Your task to perform on an android device: Search for lg ultragear on bestbuy.com, select the first entry, add it to the cart, then select checkout. Image 0: 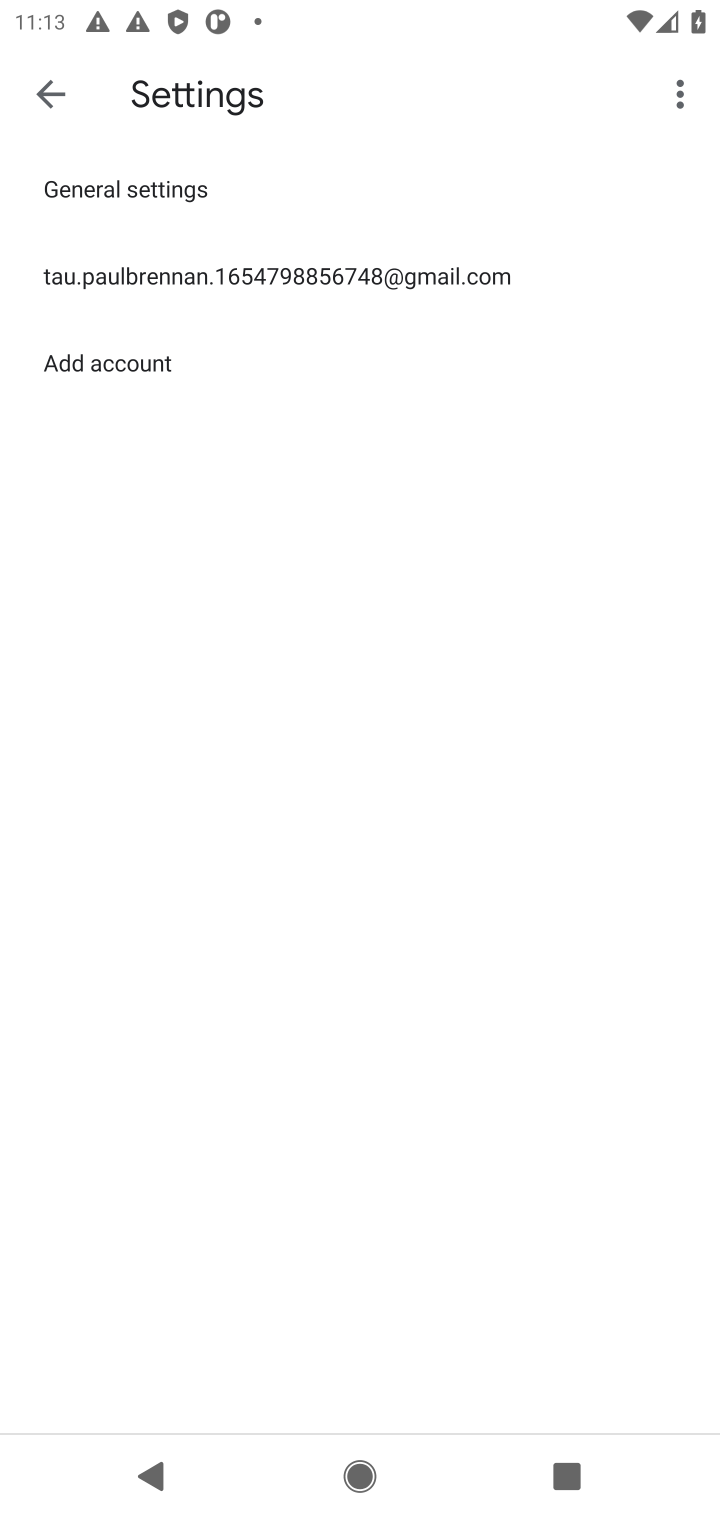
Step 0: press home button
Your task to perform on an android device: Search for lg ultragear on bestbuy.com, select the first entry, add it to the cart, then select checkout. Image 1: 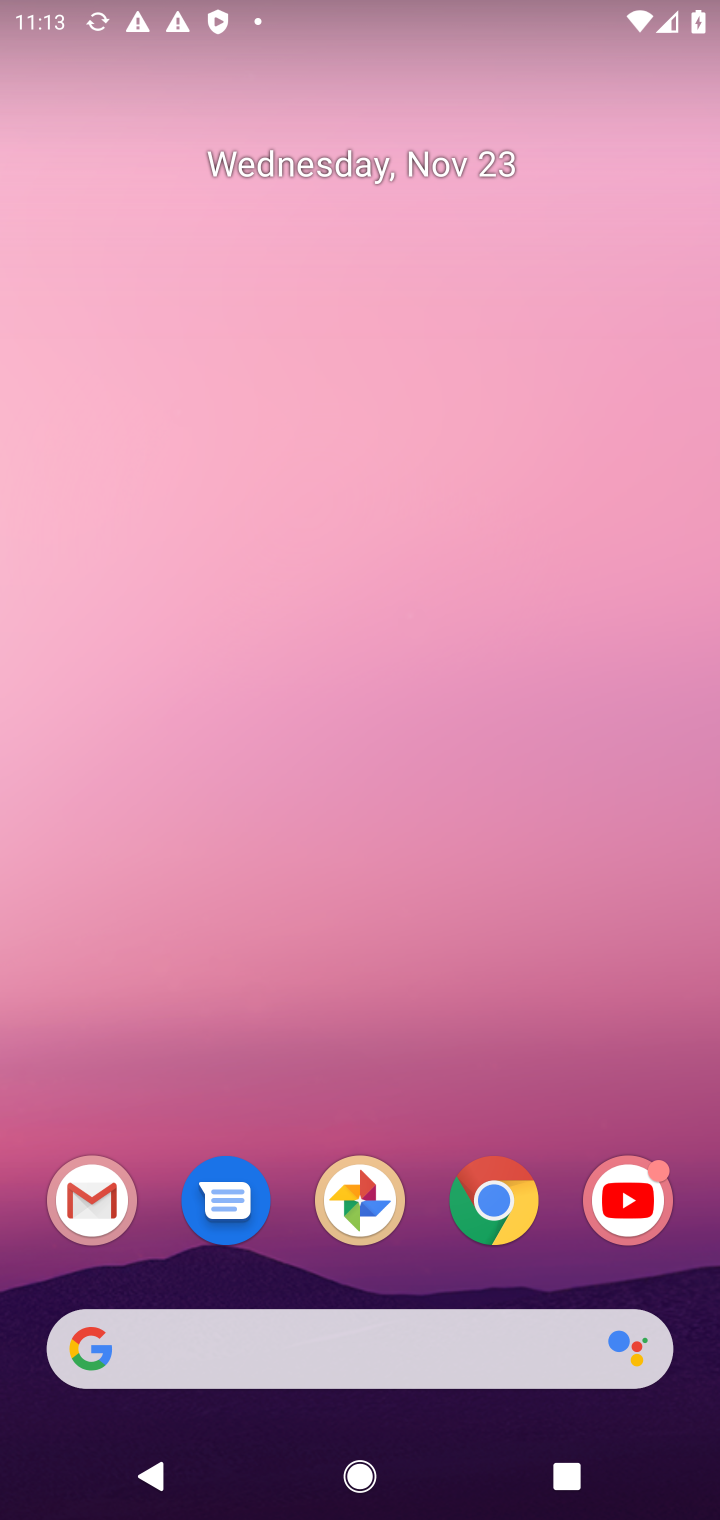
Step 1: click (258, 1359)
Your task to perform on an android device: Search for lg ultragear on bestbuy.com, select the first entry, add it to the cart, then select checkout. Image 2: 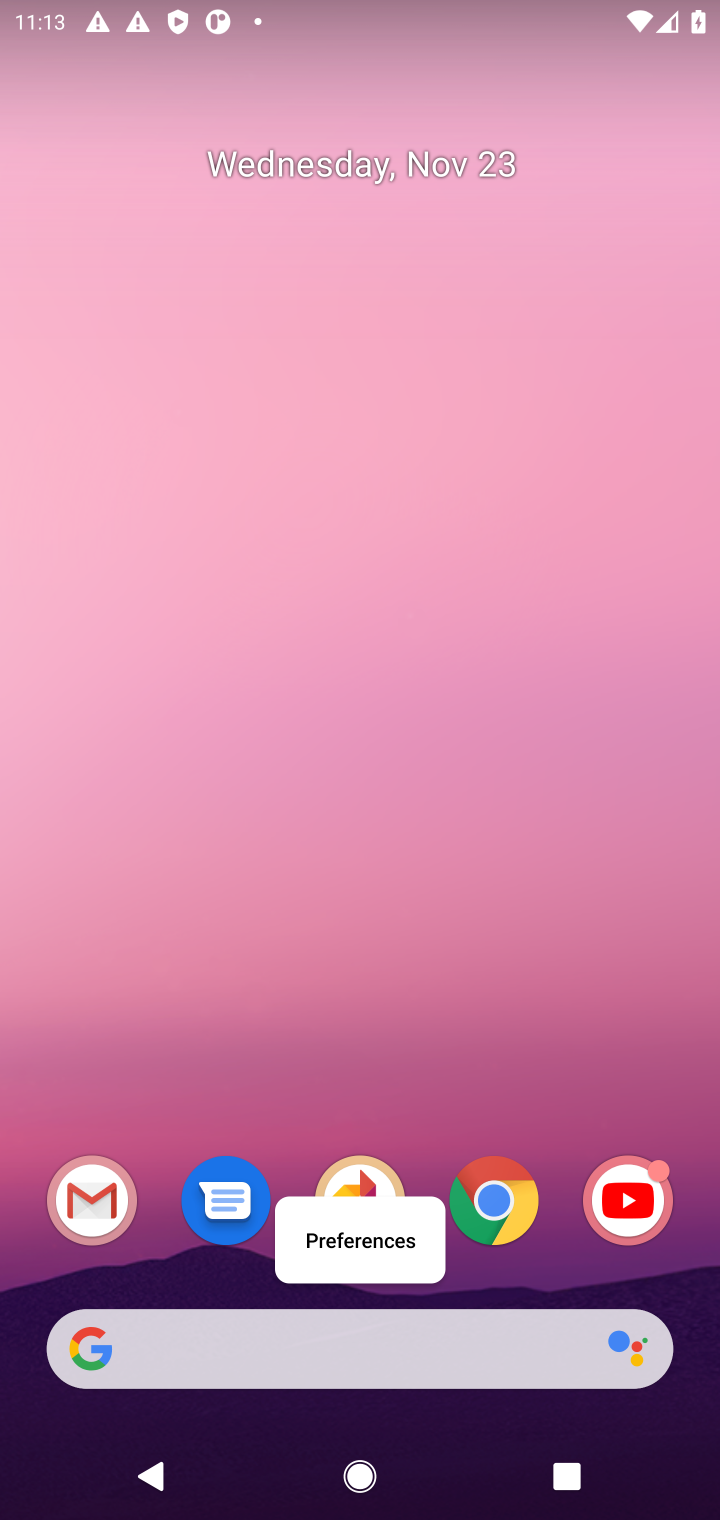
Step 2: type "bestbuy.com"
Your task to perform on an android device: Search for lg ultragear on bestbuy.com, select the first entry, add it to the cart, then select checkout. Image 3: 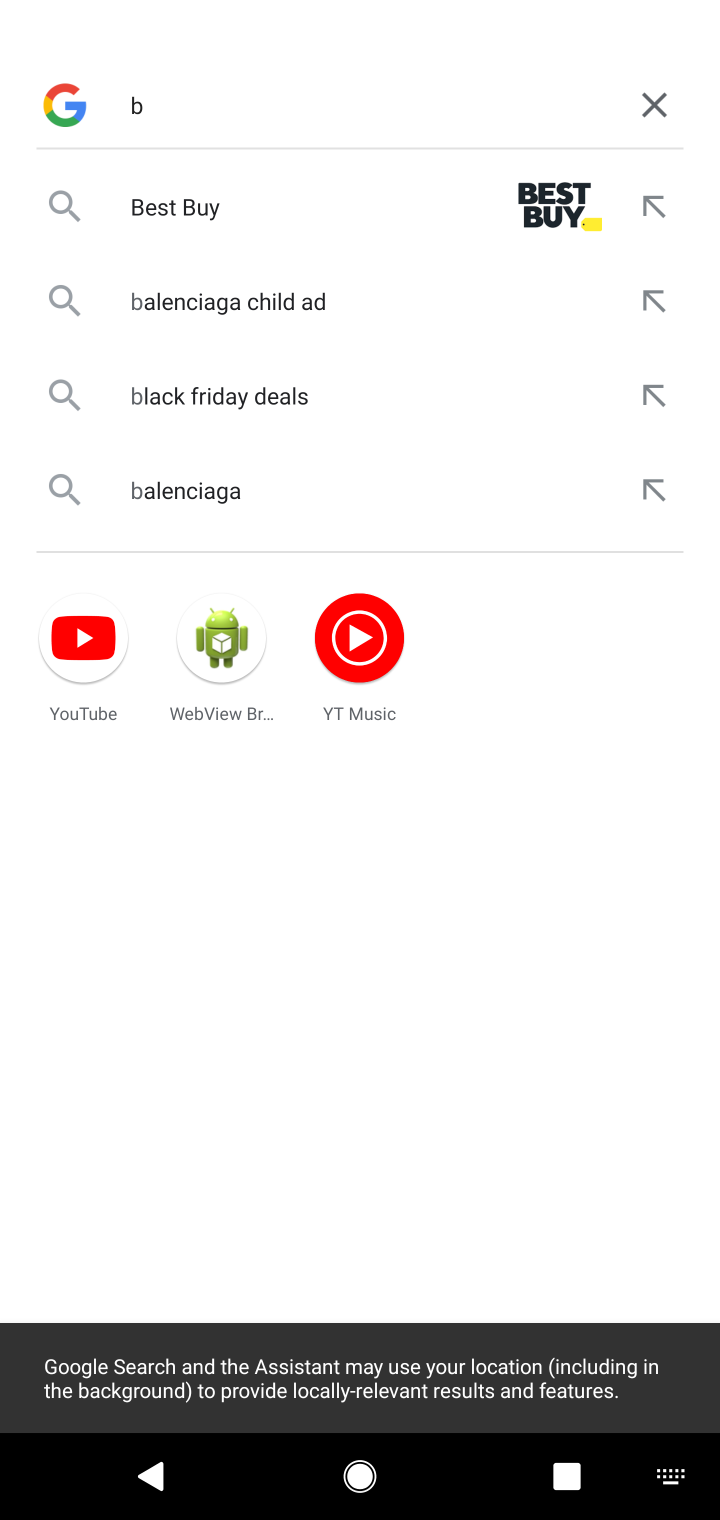
Step 3: click (243, 228)
Your task to perform on an android device: Search for lg ultragear on bestbuy.com, select the first entry, add it to the cart, then select checkout. Image 4: 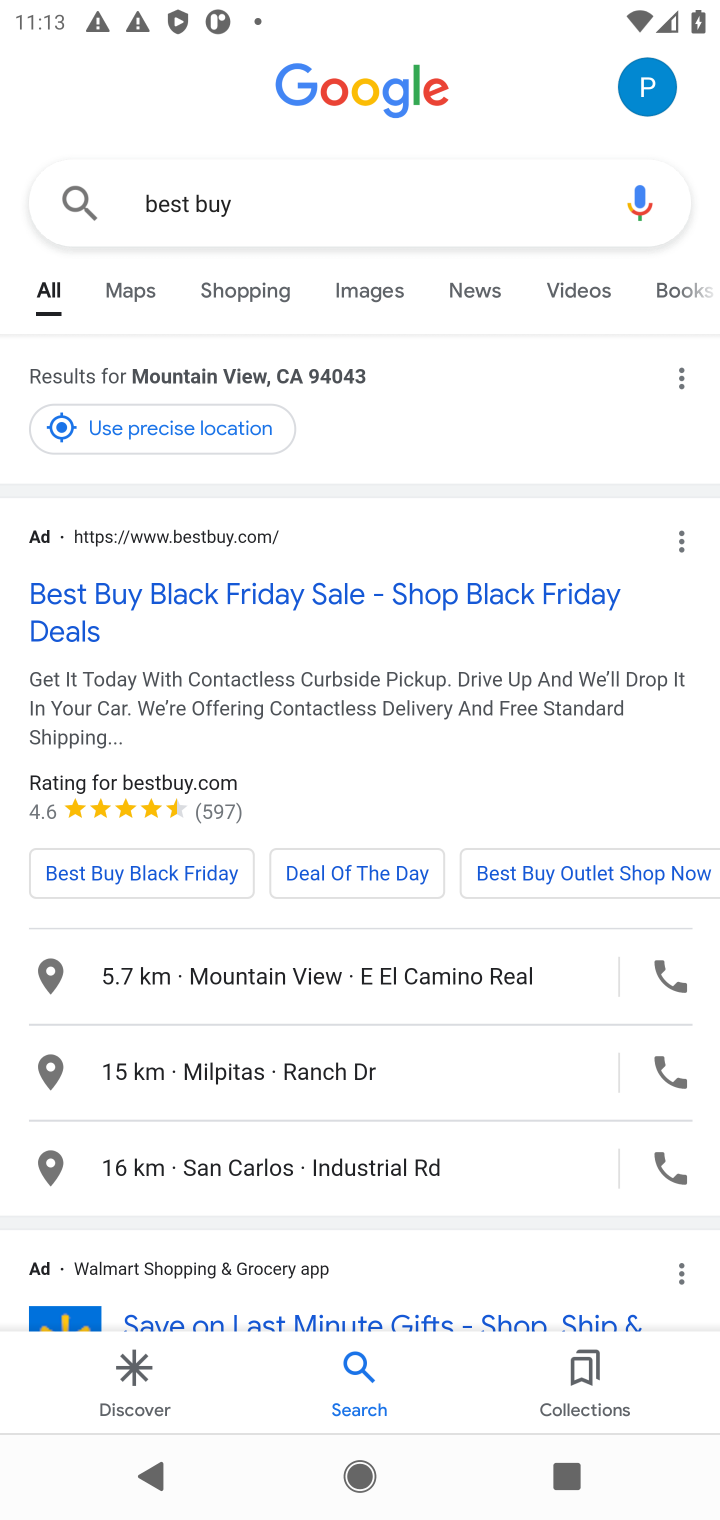
Step 4: click (109, 603)
Your task to perform on an android device: Search for lg ultragear on bestbuy.com, select the first entry, add it to the cart, then select checkout. Image 5: 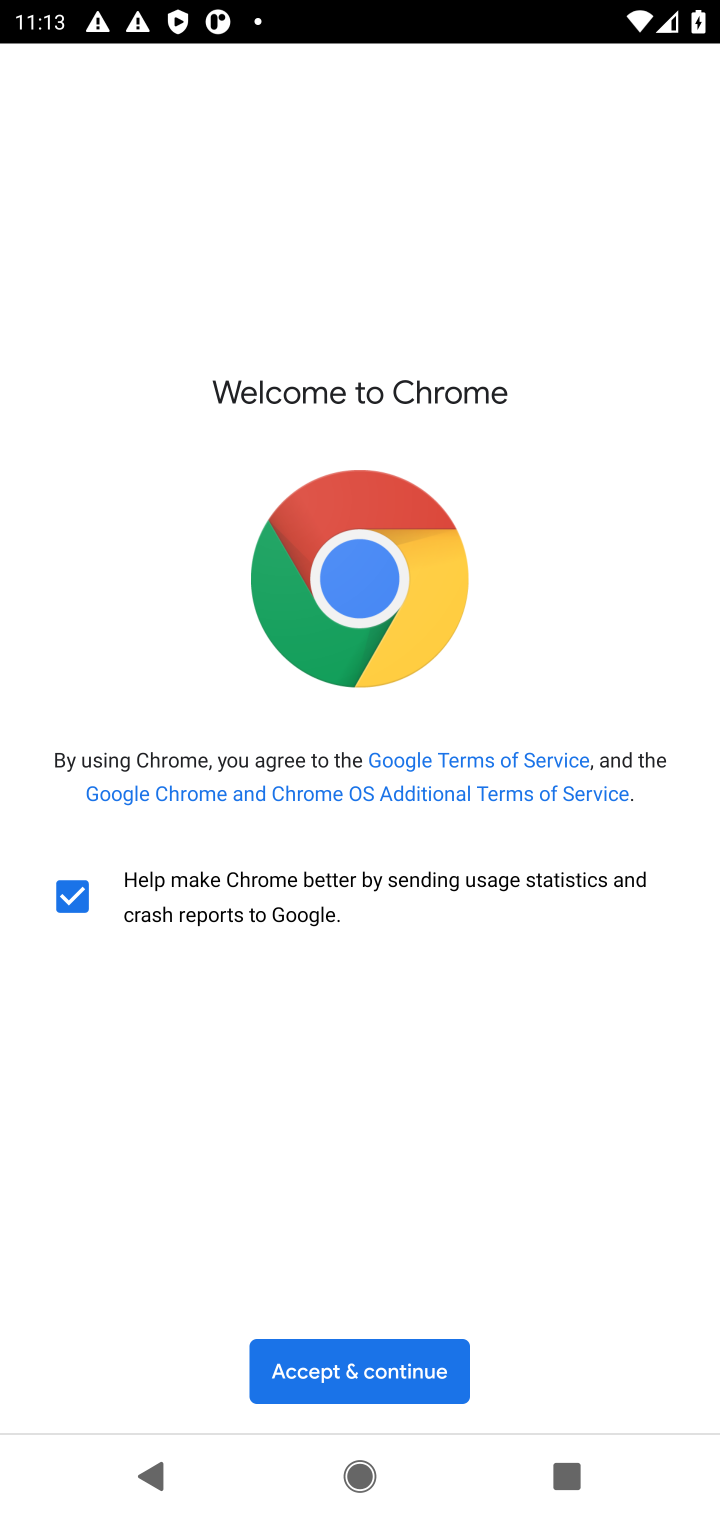
Step 5: click (391, 1393)
Your task to perform on an android device: Search for lg ultragear on bestbuy.com, select the first entry, add it to the cart, then select checkout. Image 6: 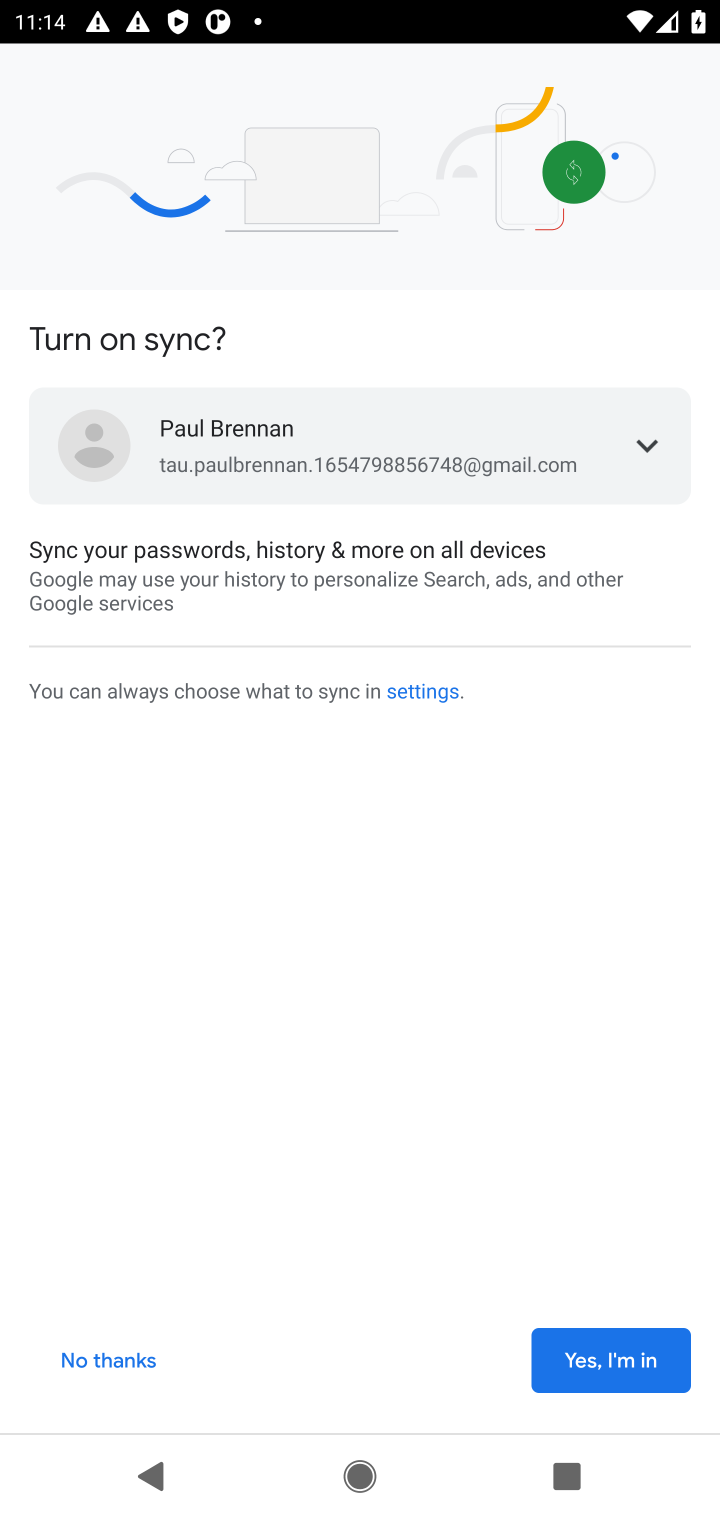
Step 6: click (568, 1377)
Your task to perform on an android device: Search for lg ultragear on bestbuy.com, select the first entry, add it to the cart, then select checkout. Image 7: 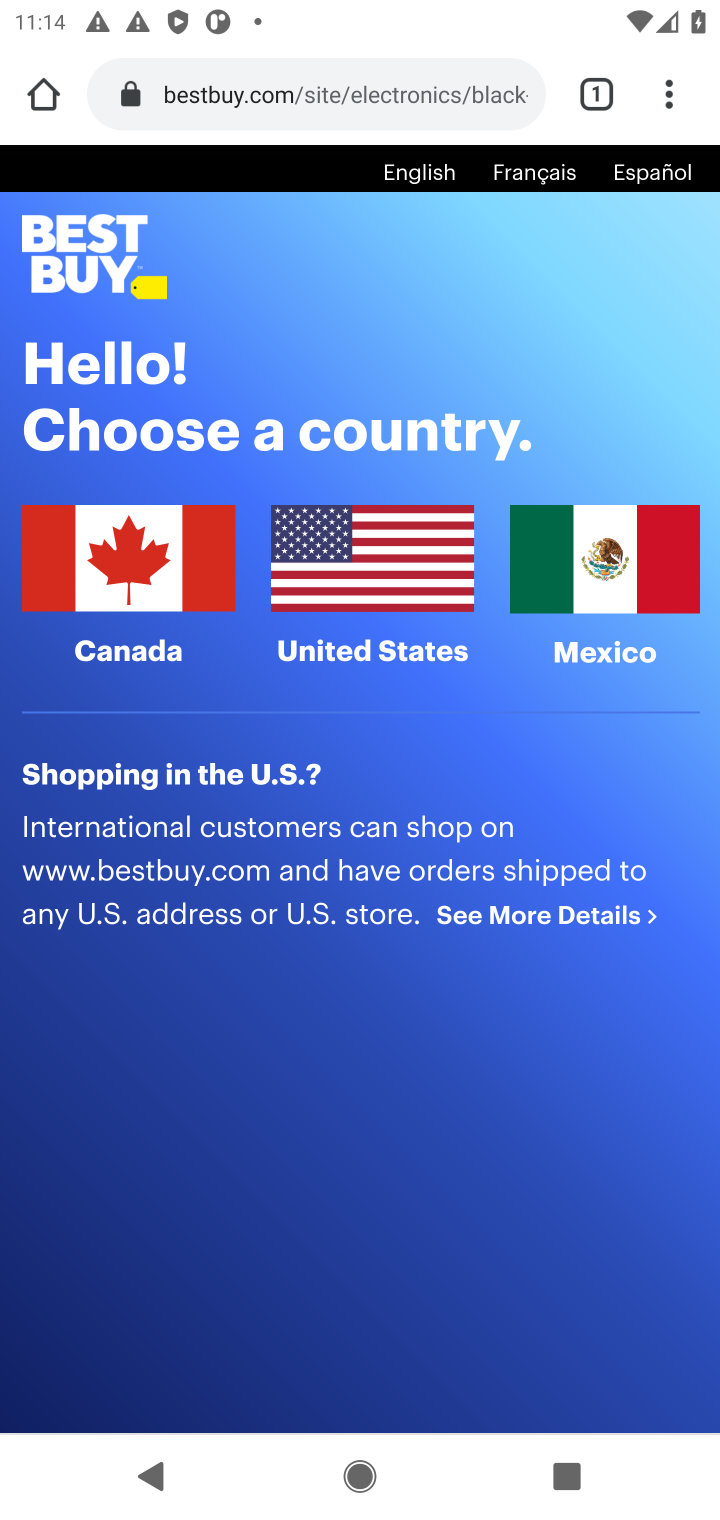
Step 7: click (99, 587)
Your task to perform on an android device: Search for lg ultragear on bestbuy.com, select the first entry, add it to the cart, then select checkout. Image 8: 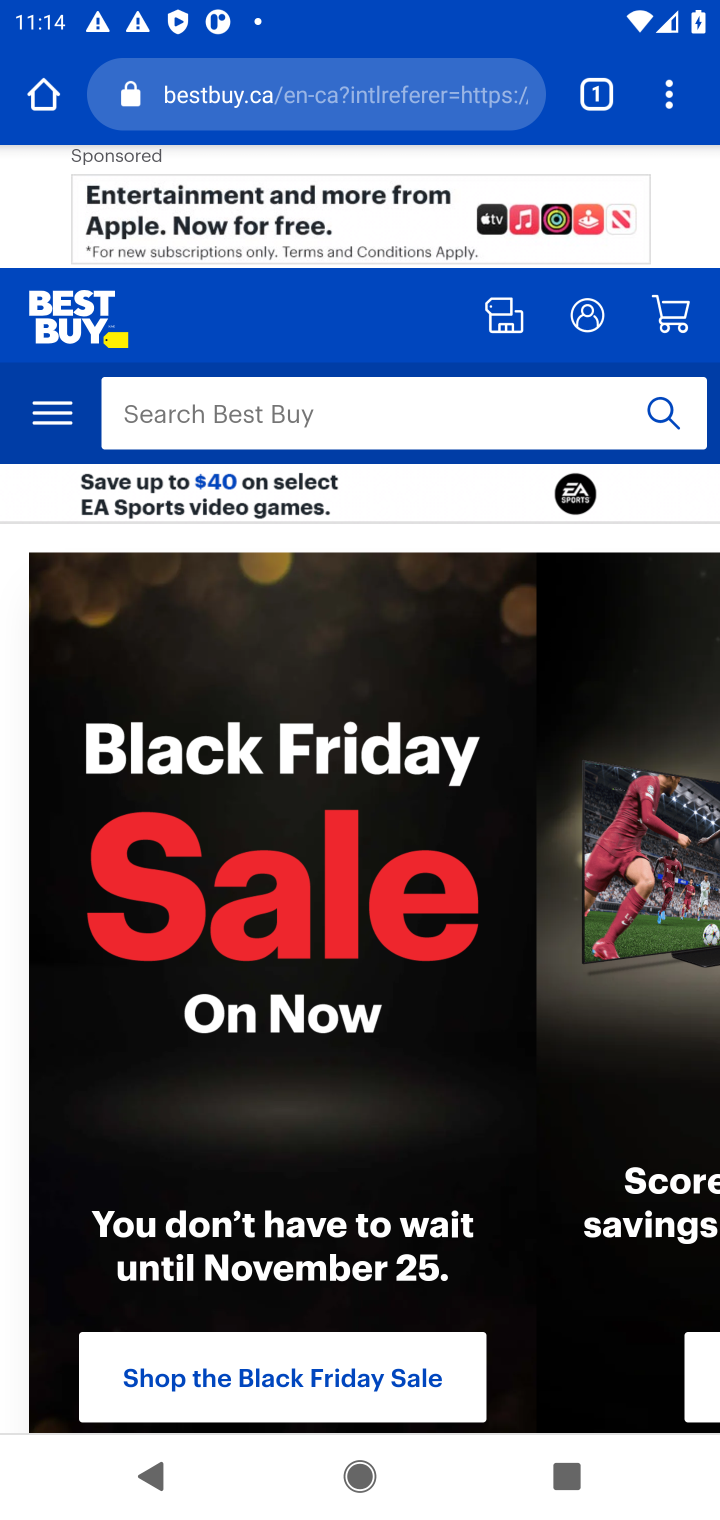
Step 8: click (363, 405)
Your task to perform on an android device: Search for lg ultragear on bestbuy.com, select the first entry, add it to the cart, then select checkout. Image 9: 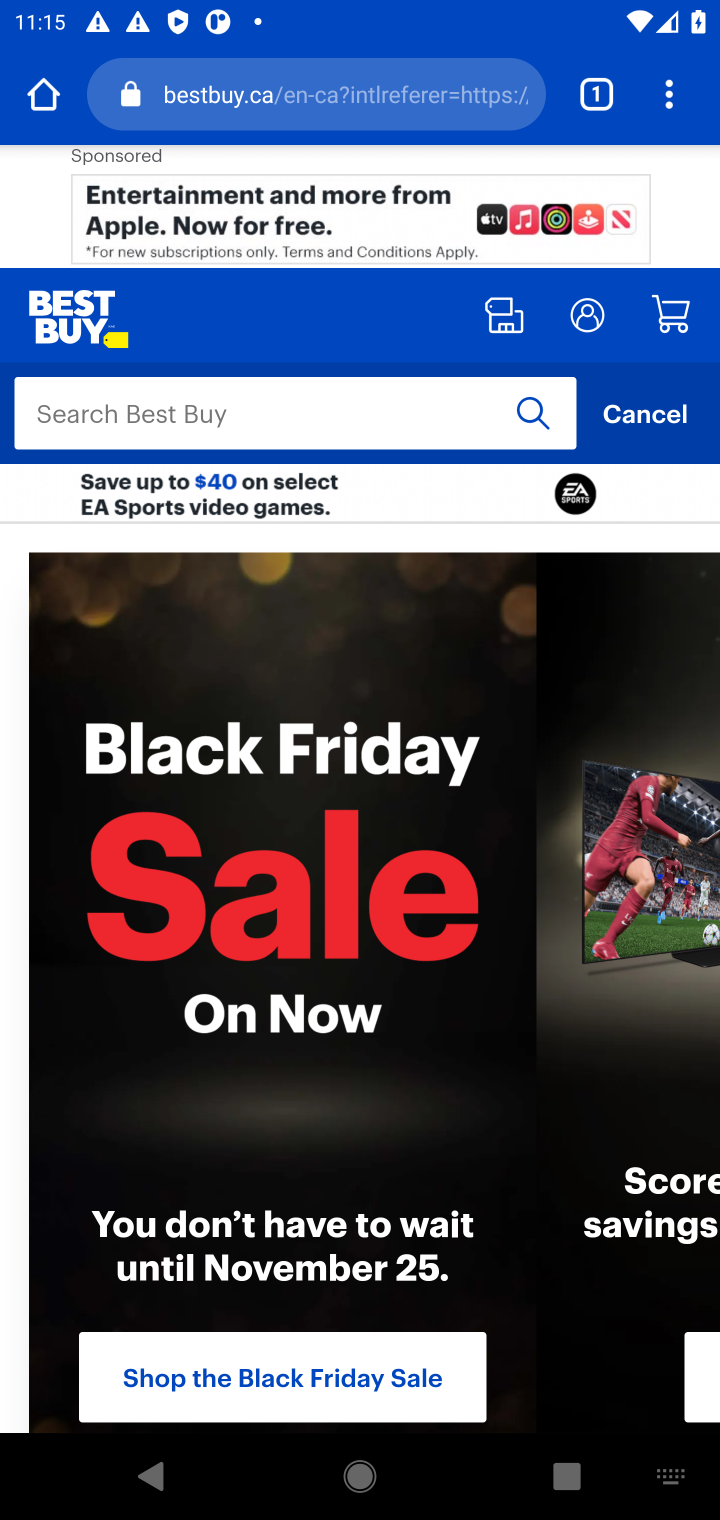
Step 9: type "lg ultragear"
Your task to perform on an android device: Search for lg ultragear on bestbuy.com, select the first entry, add it to the cart, then select checkout. Image 10: 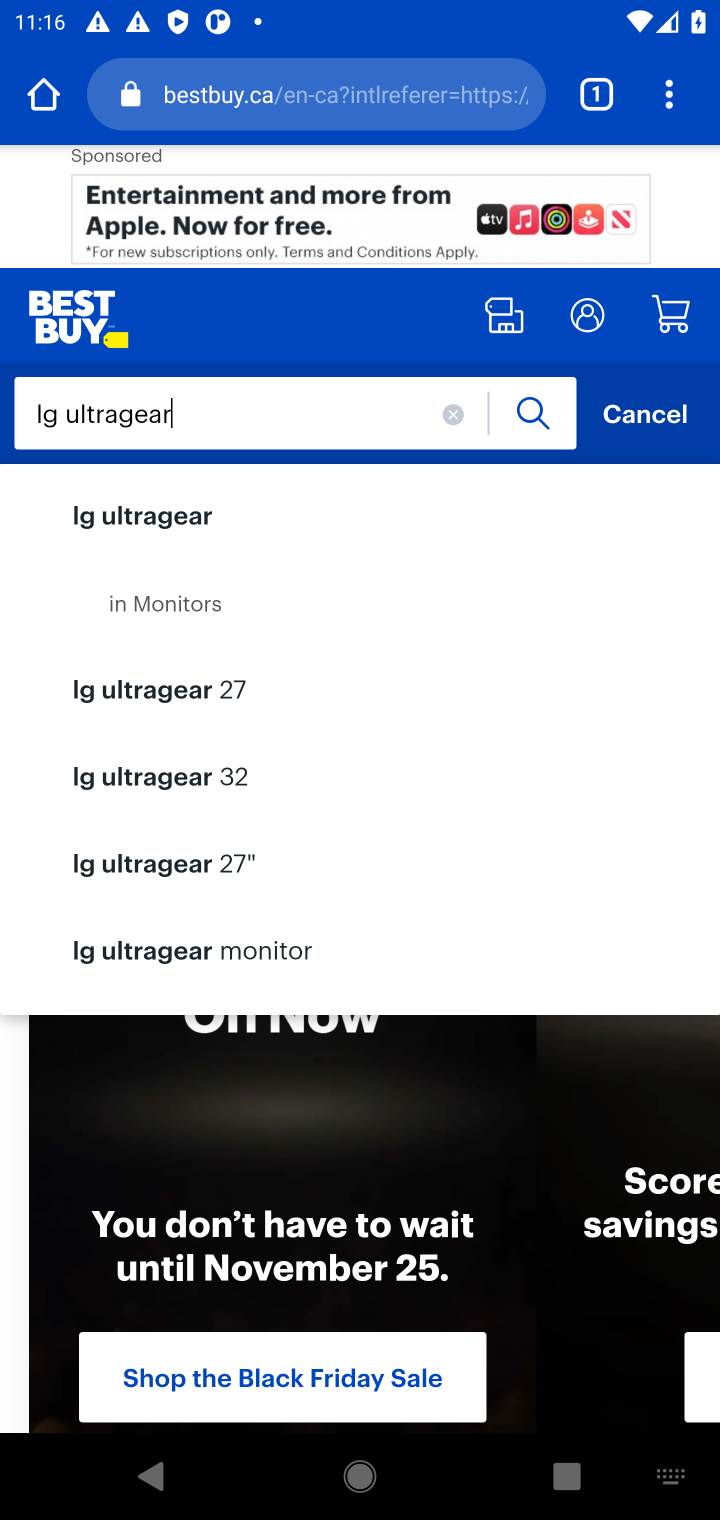
Step 10: click (259, 513)
Your task to perform on an android device: Search for lg ultragear on bestbuy.com, select the first entry, add it to the cart, then select checkout. Image 11: 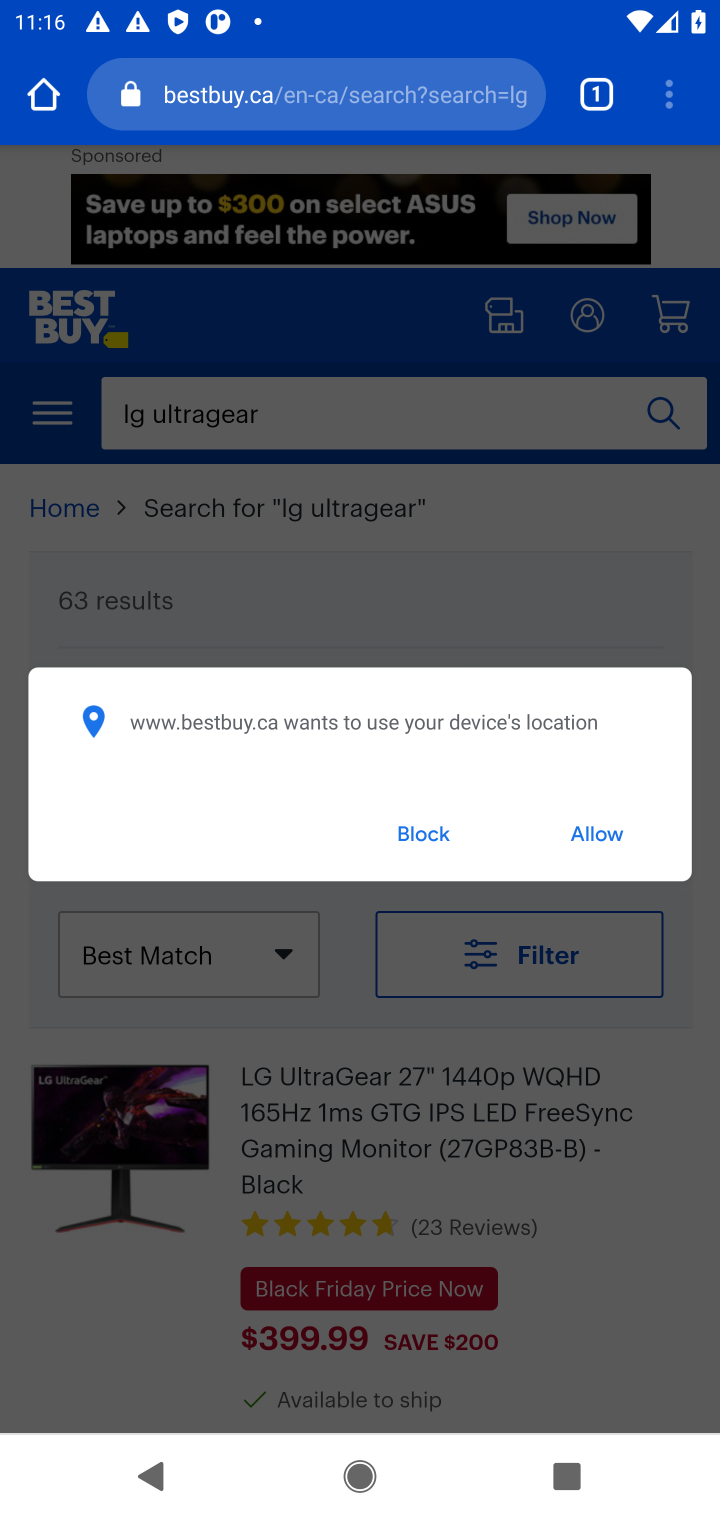
Step 11: click (589, 841)
Your task to perform on an android device: Search for lg ultragear on bestbuy.com, select the first entry, add it to the cart, then select checkout. Image 12: 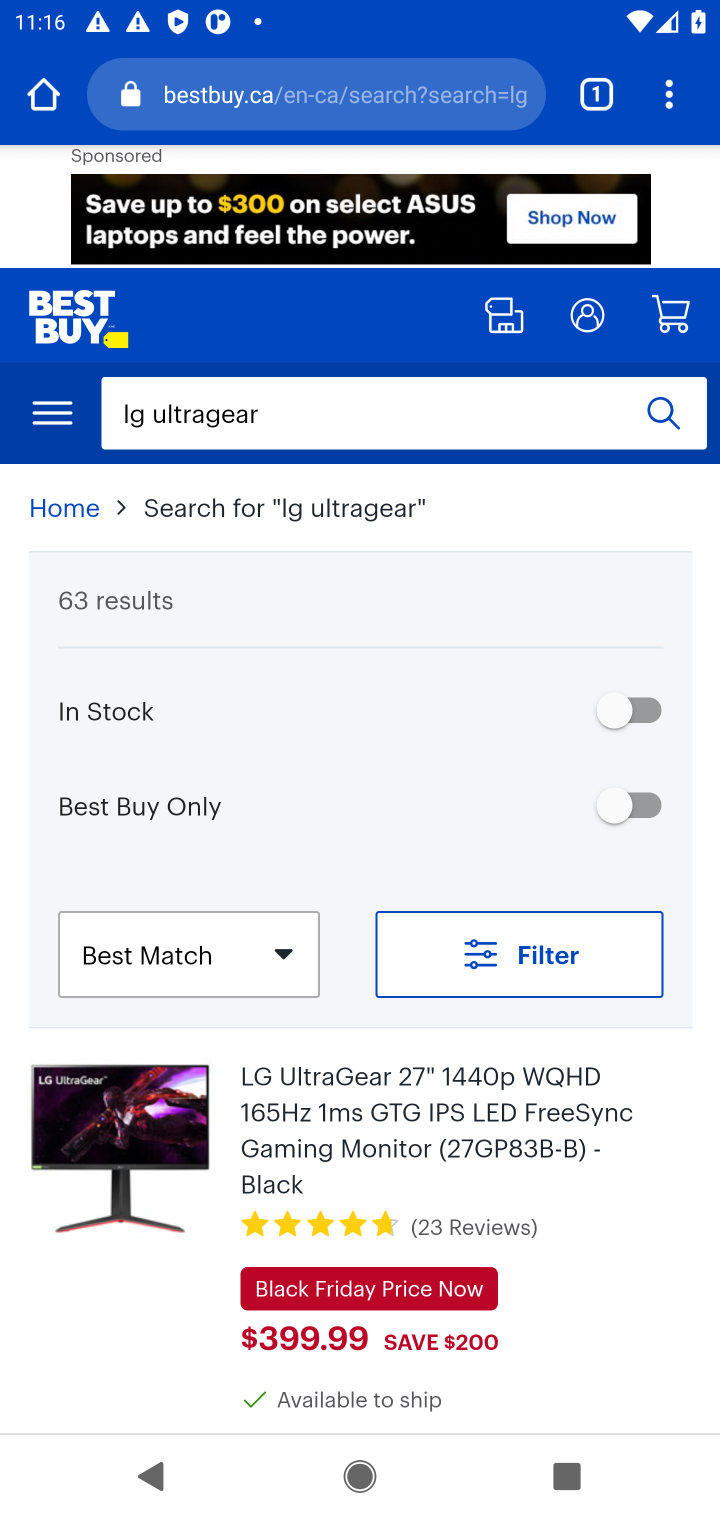
Step 12: click (462, 400)
Your task to perform on an android device: Search for lg ultragear on bestbuy.com, select the first entry, add it to the cart, then select checkout. Image 13: 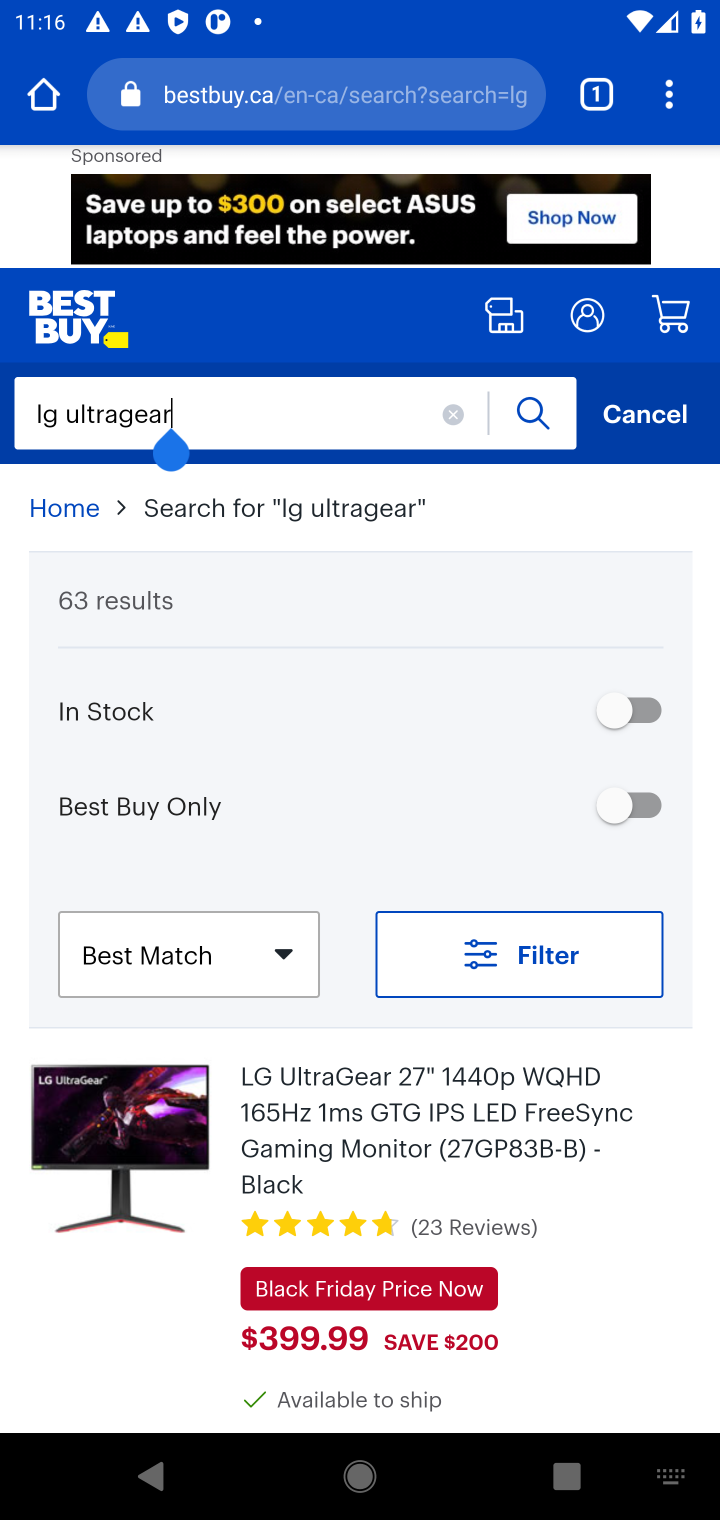
Step 13: click (383, 1272)
Your task to perform on an android device: Search for lg ultragear on bestbuy.com, select the first entry, add it to the cart, then select checkout. Image 14: 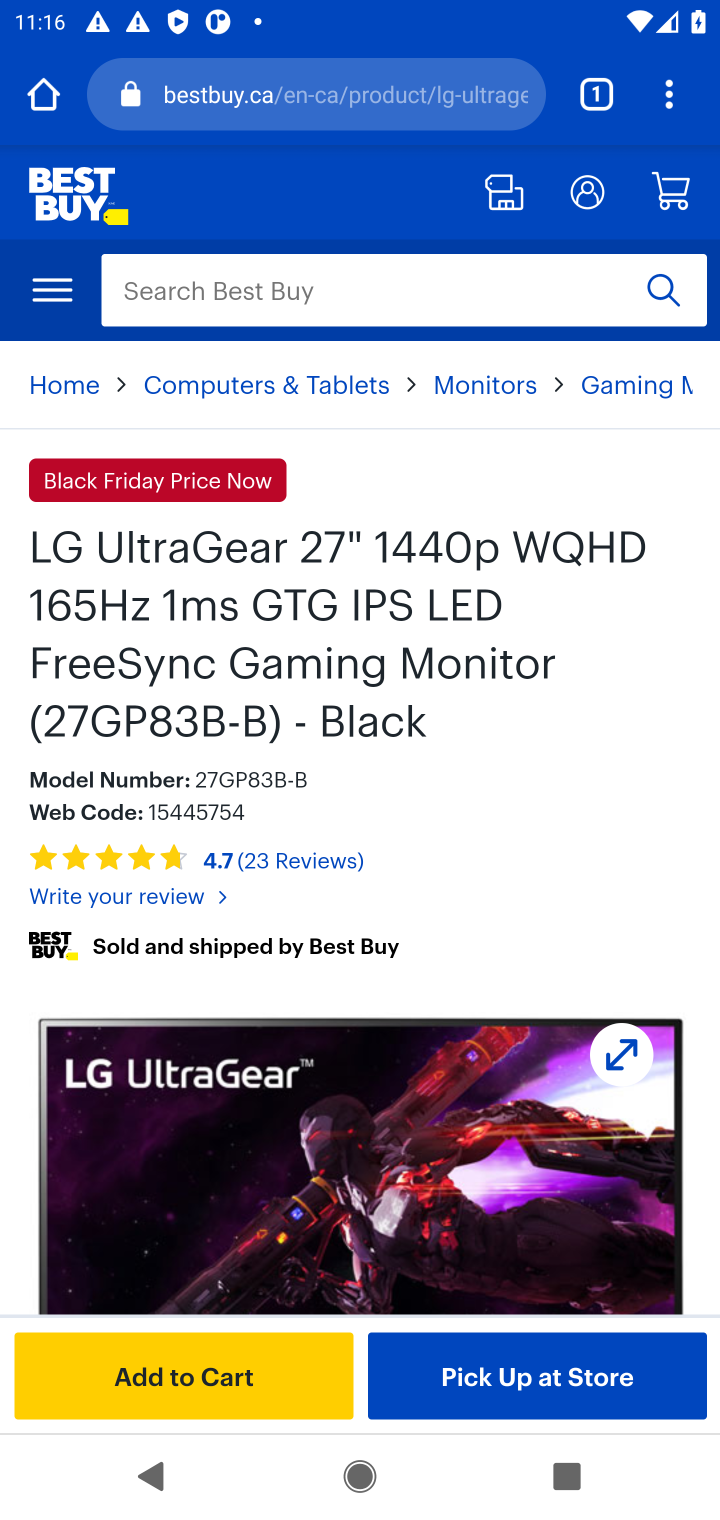
Step 14: click (204, 1389)
Your task to perform on an android device: Search for lg ultragear on bestbuy.com, select the first entry, add it to the cart, then select checkout. Image 15: 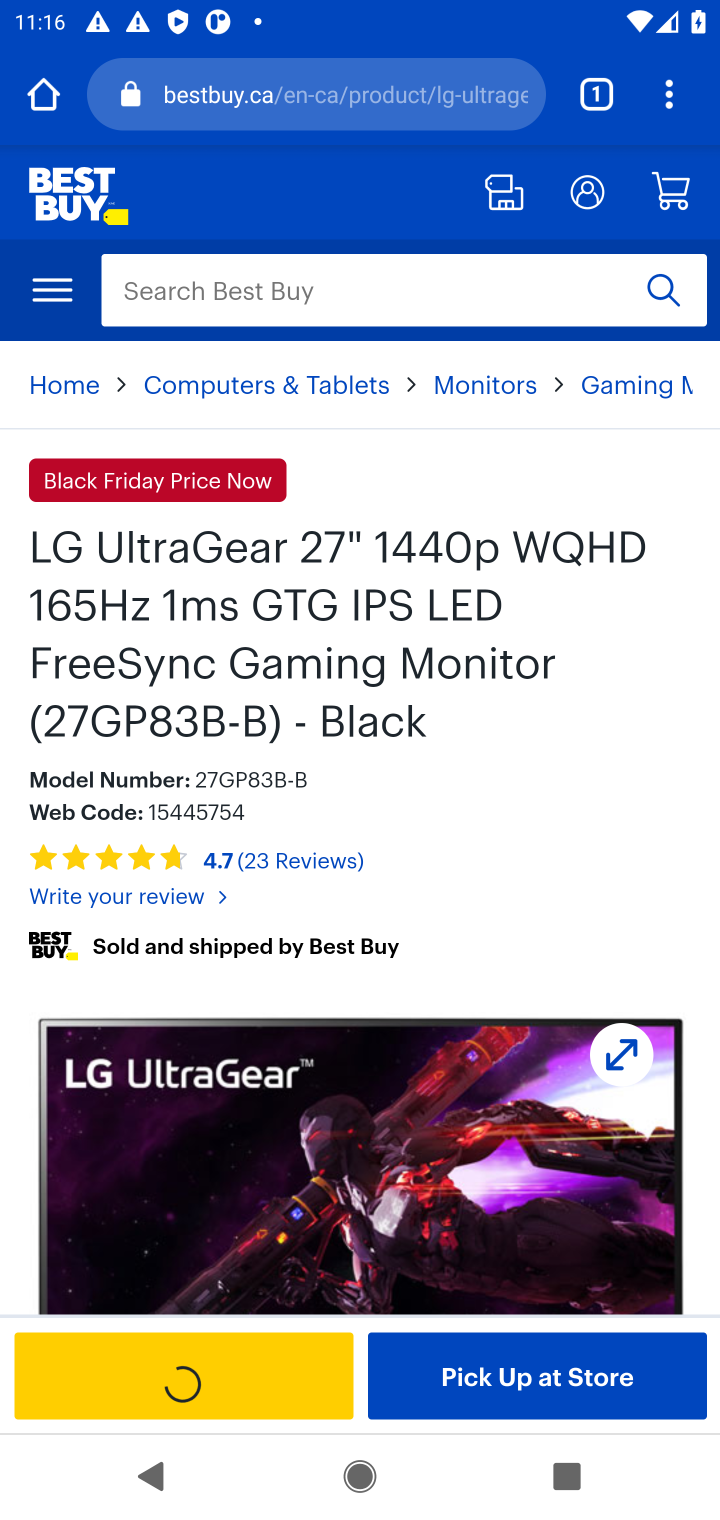
Step 15: task complete